Your task to perform on an android device: see creations saved in the google photos Image 0: 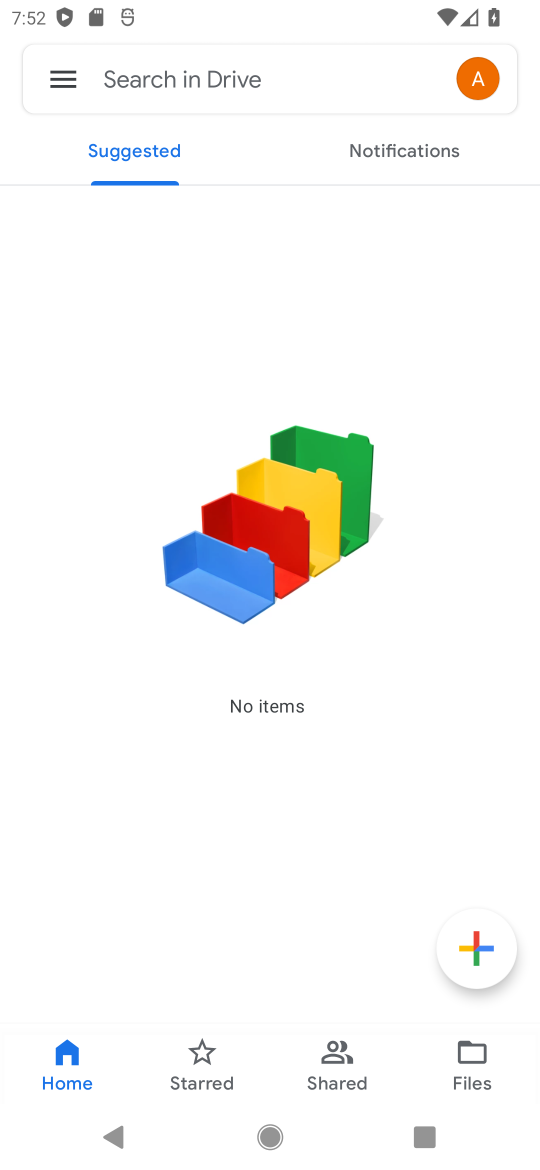
Step 0: press home button
Your task to perform on an android device: see creations saved in the google photos Image 1: 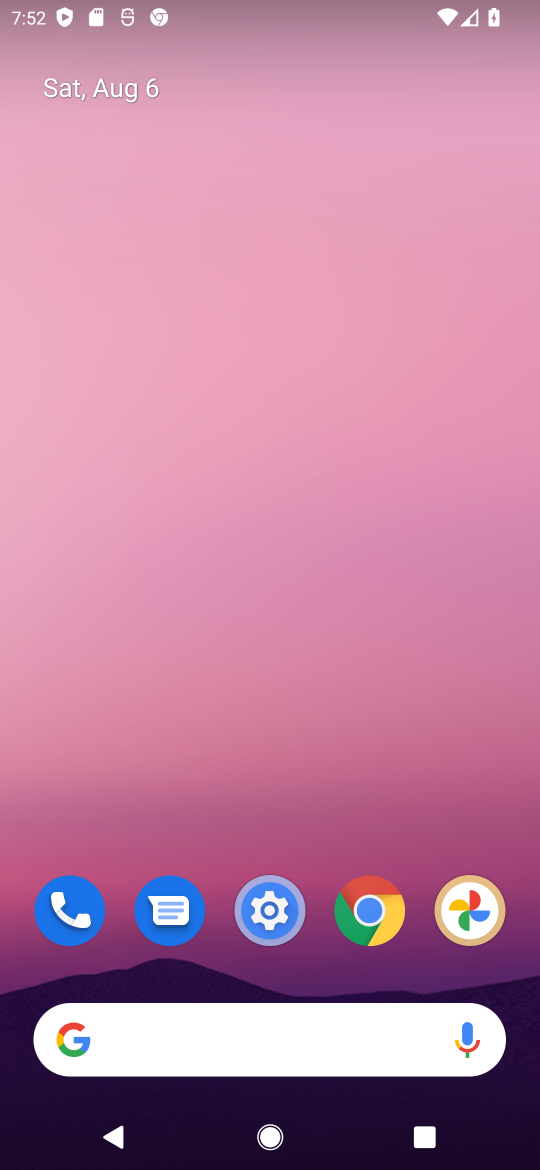
Step 1: click (482, 903)
Your task to perform on an android device: see creations saved in the google photos Image 2: 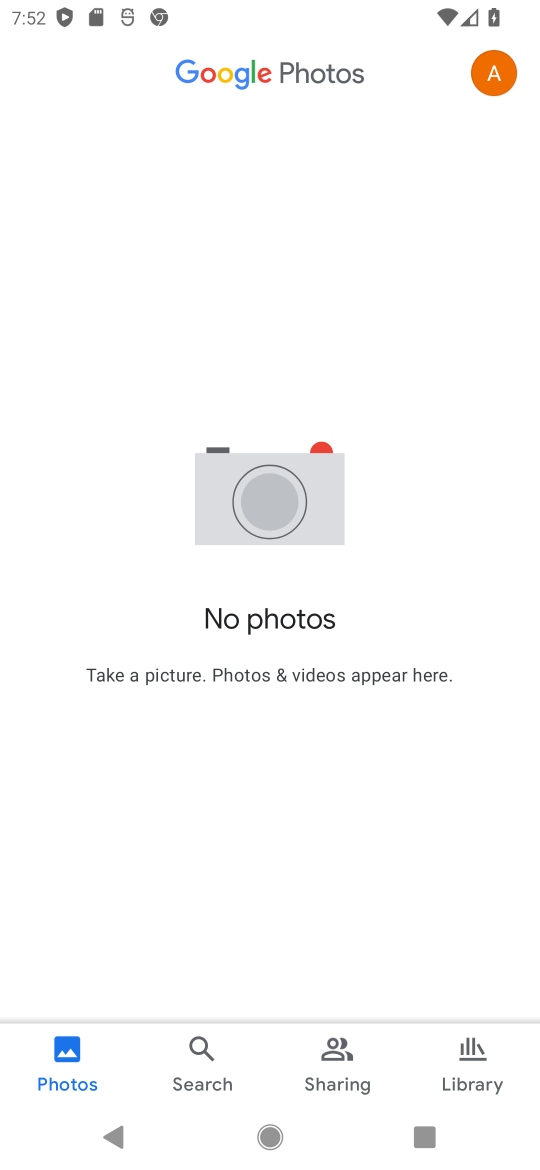
Step 2: click (57, 1060)
Your task to perform on an android device: see creations saved in the google photos Image 3: 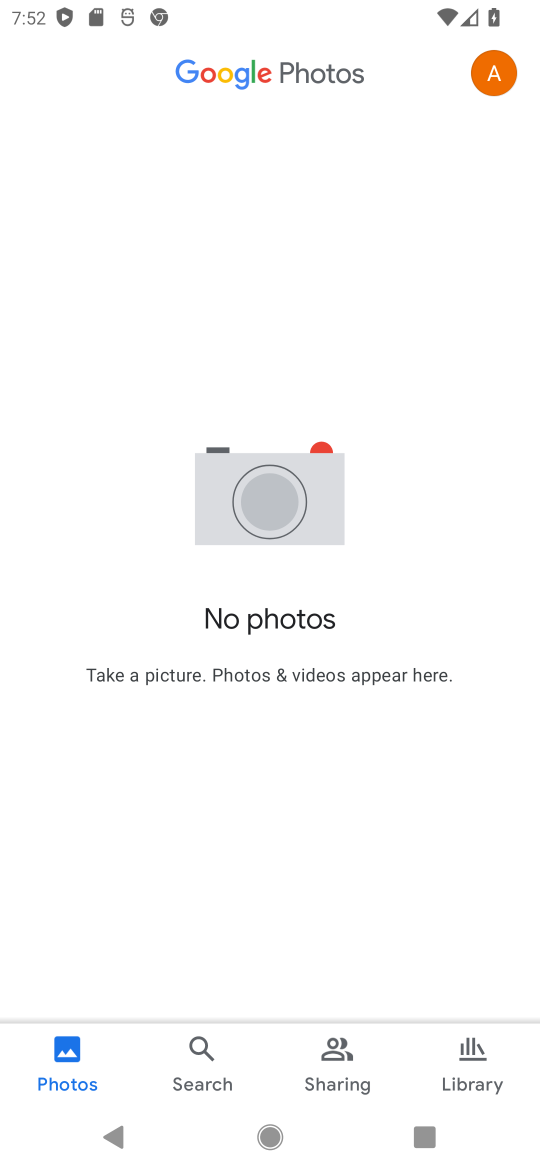
Step 3: task complete